Your task to perform on an android device: delete browsing data in the chrome app Image 0: 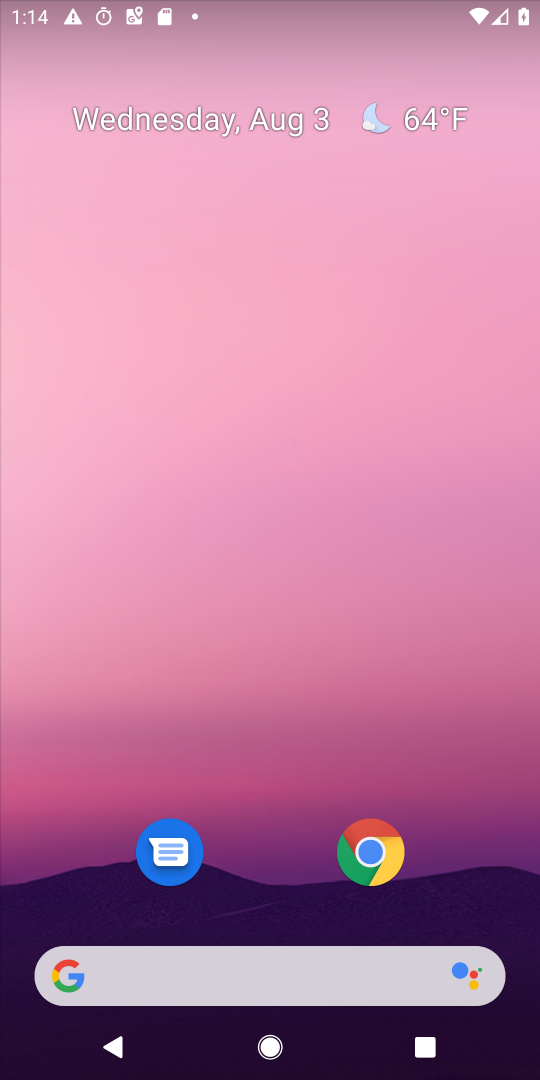
Step 0: drag from (479, 696) to (283, 30)
Your task to perform on an android device: delete browsing data in the chrome app Image 1: 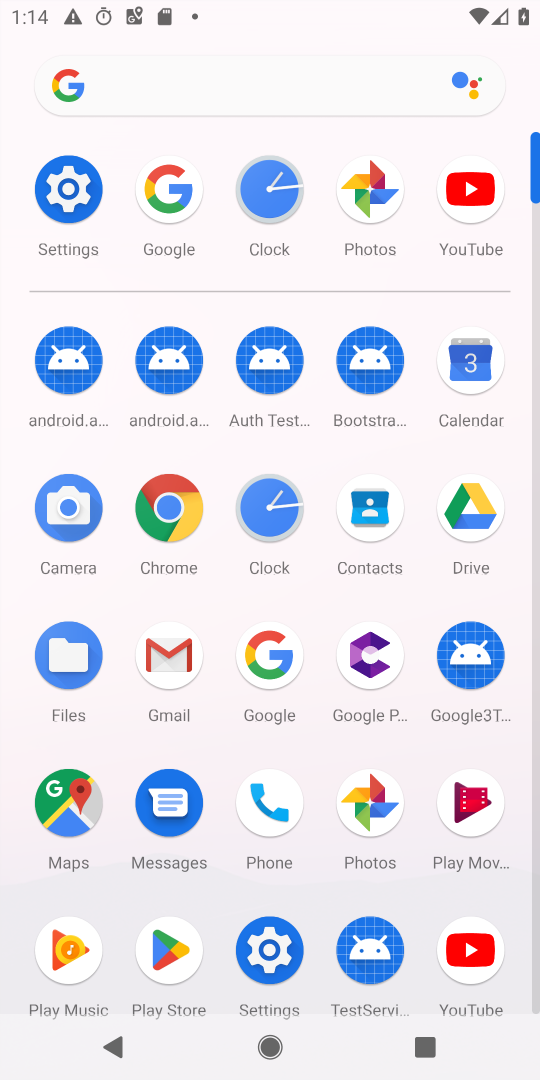
Step 1: click (176, 534)
Your task to perform on an android device: delete browsing data in the chrome app Image 2: 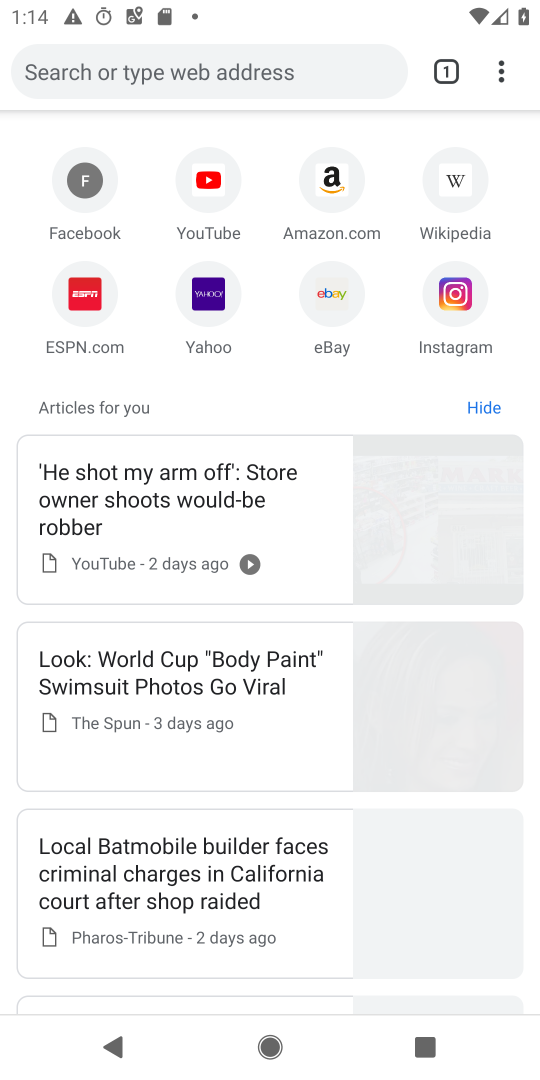
Step 2: click (497, 63)
Your task to perform on an android device: delete browsing data in the chrome app Image 3: 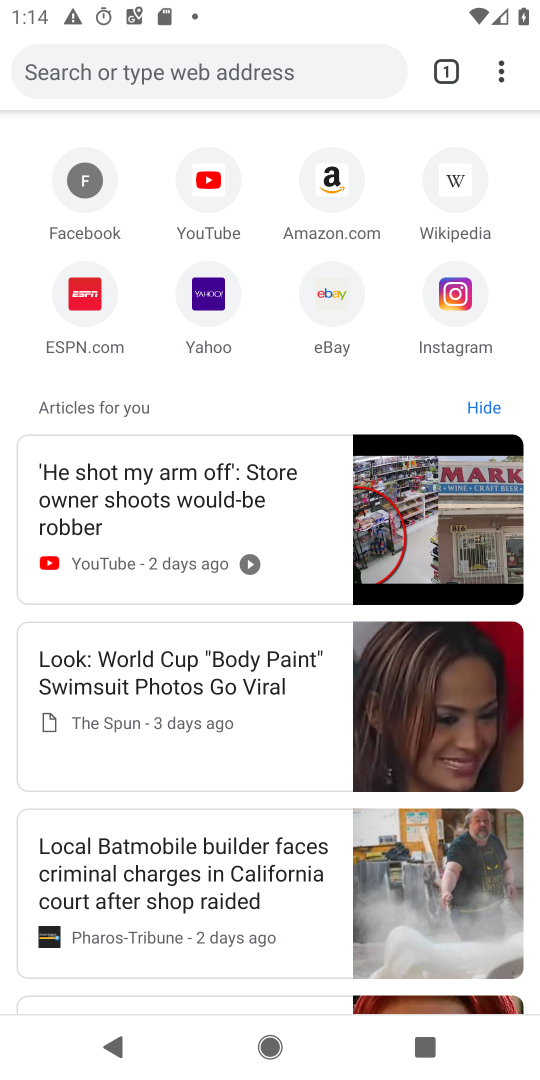
Step 3: click (501, 56)
Your task to perform on an android device: delete browsing data in the chrome app Image 4: 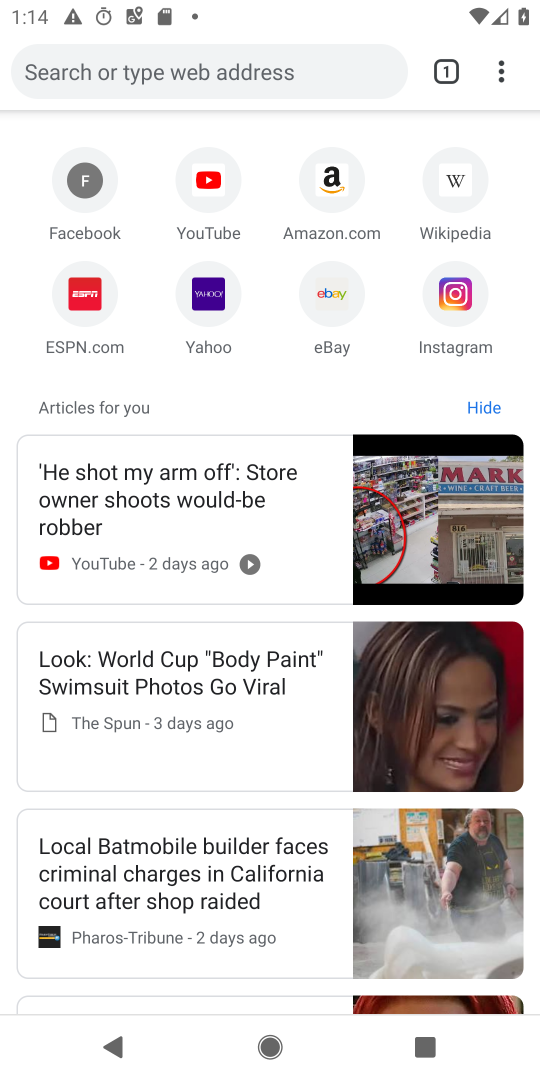
Step 4: click (505, 70)
Your task to perform on an android device: delete browsing data in the chrome app Image 5: 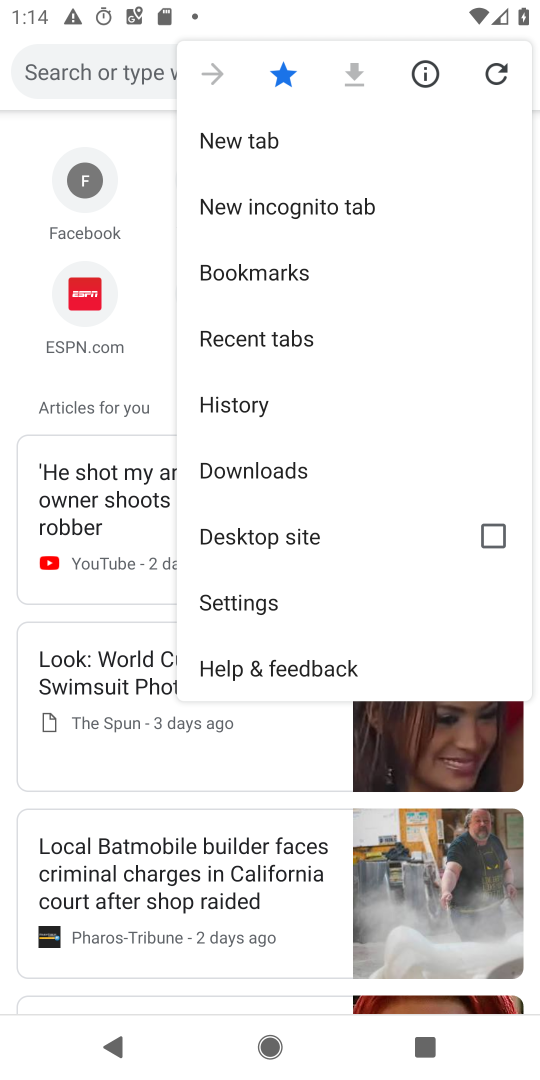
Step 5: click (199, 408)
Your task to perform on an android device: delete browsing data in the chrome app Image 6: 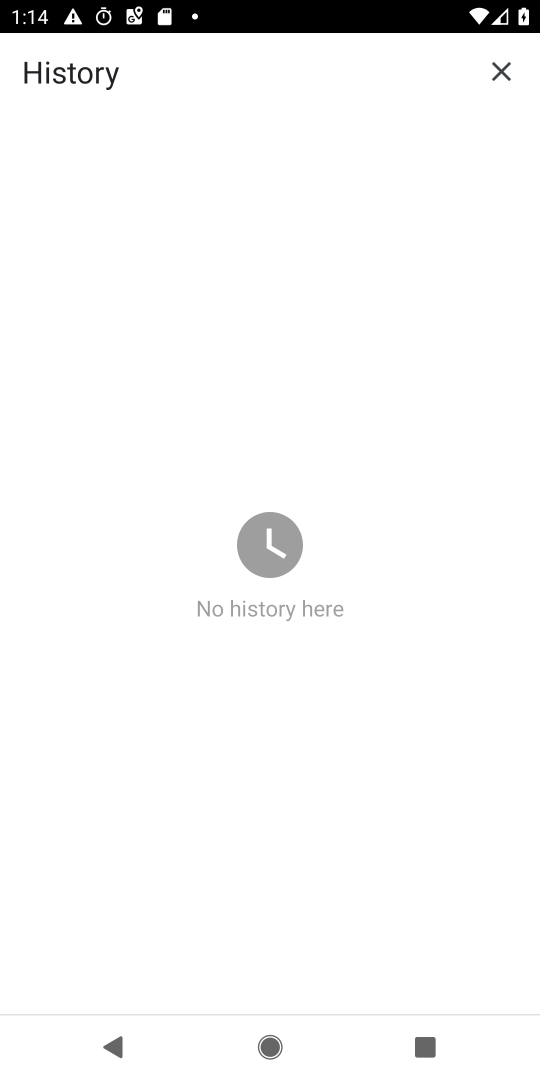
Step 6: task complete